Your task to perform on an android device: Open settings Image 0: 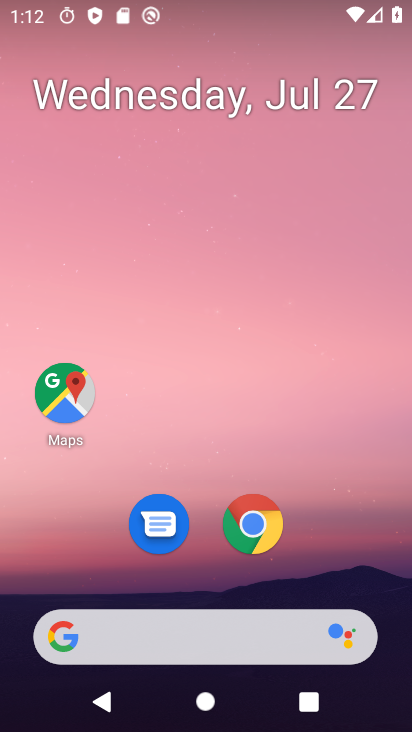
Step 0: drag from (299, 539) to (284, 98)
Your task to perform on an android device: Open settings Image 1: 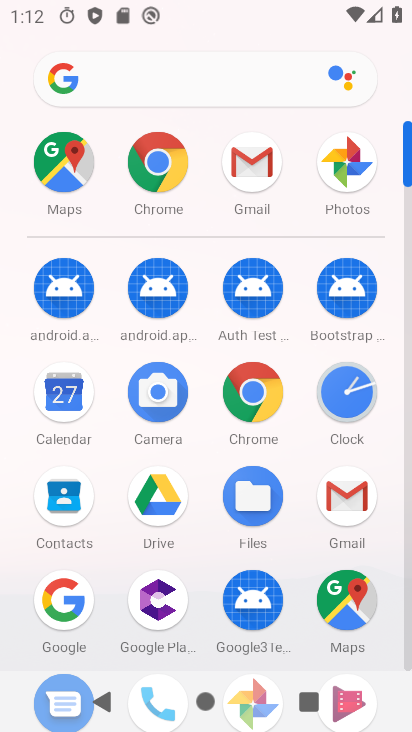
Step 1: drag from (203, 517) to (194, 54)
Your task to perform on an android device: Open settings Image 2: 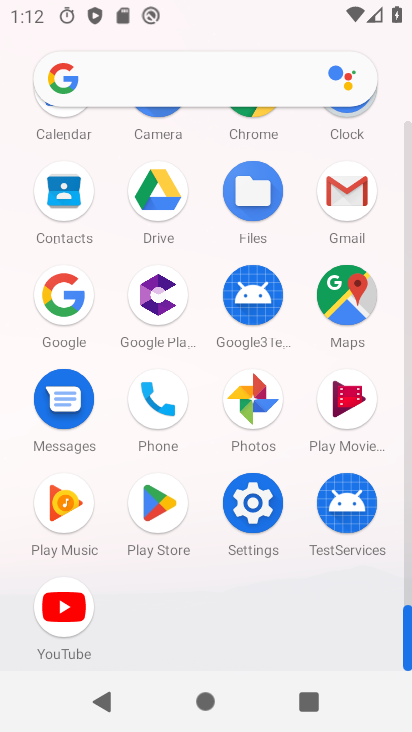
Step 2: click (255, 487)
Your task to perform on an android device: Open settings Image 3: 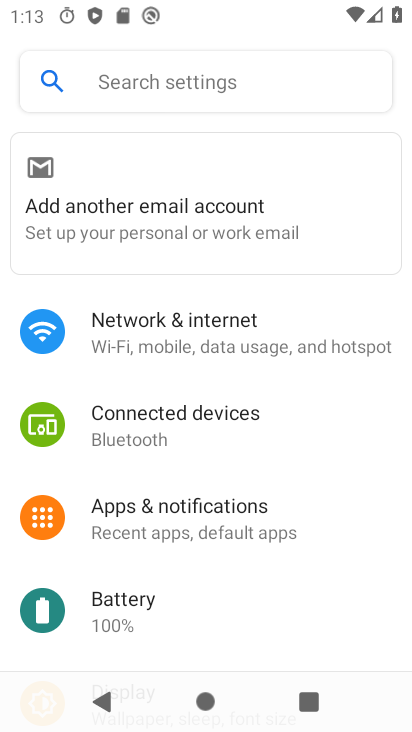
Step 3: task complete